Your task to perform on an android device: Open Google Maps and go to "Timeline" Image 0: 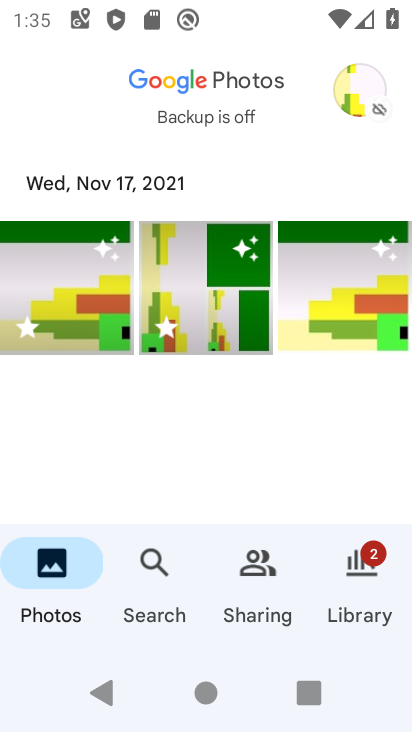
Step 0: press home button
Your task to perform on an android device: Open Google Maps and go to "Timeline" Image 1: 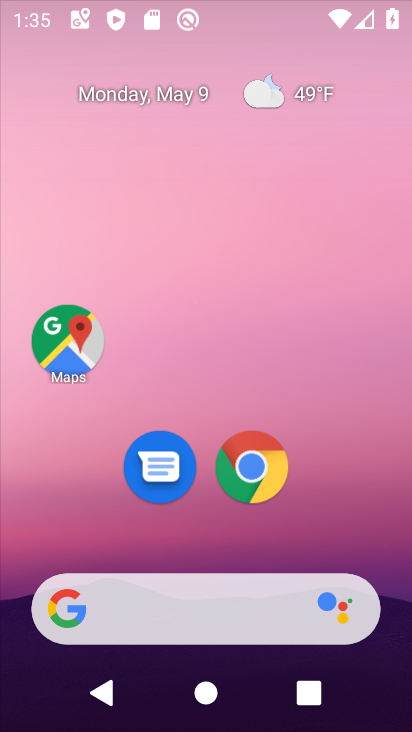
Step 1: drag from (393, 526) to (352, 115)
Your task to perform on an android device: Open Google Maps and go to "Timeline" Image 2: 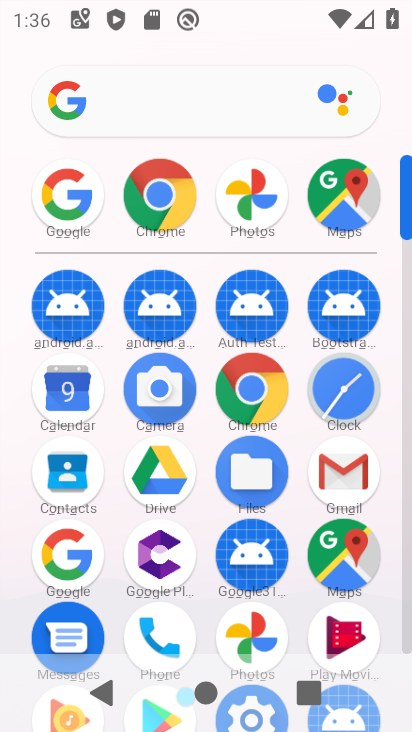
Step 2: click (342, 555)
Your task to perform on an android device: Open Google Maps and go to "Timeline" Image 3: 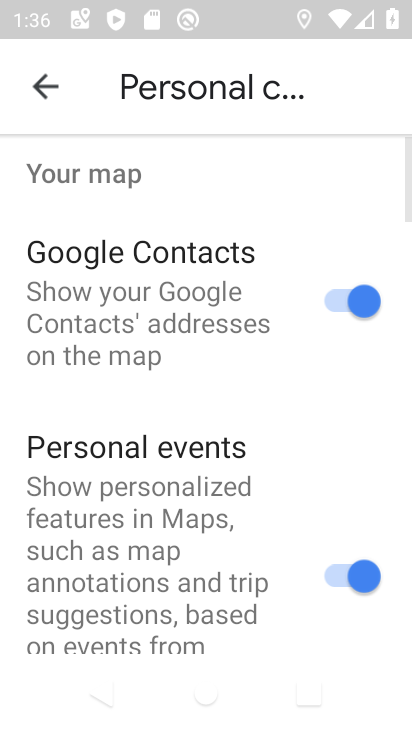
Step 3: click (34, 91)
Your task to perform on an android device: Open Google Maps and go to "Timeline" Image 4: 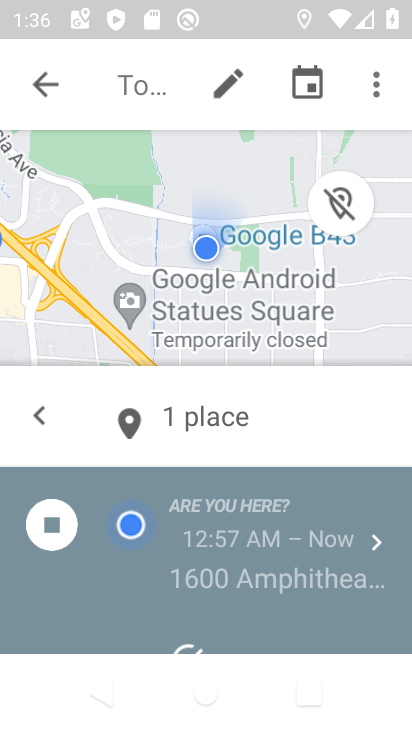
Step 4: task complete